Your task to perform on an android device: Go to notification settings Image 0: 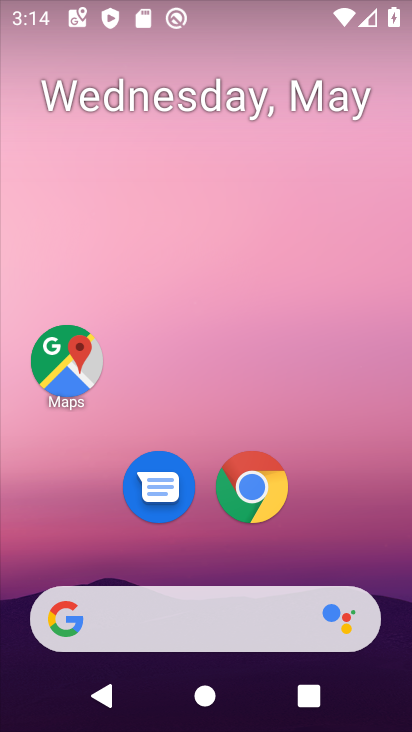
Step 0: drag from (333, 534) to (261, 39)
Your task to perform on an android device: Go to notification settings Image 1: 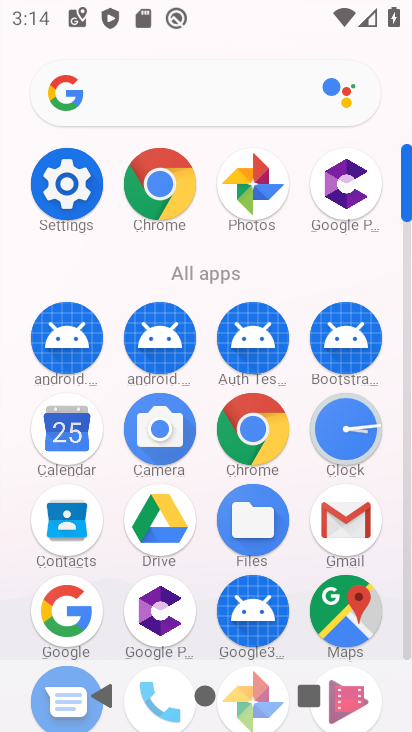
Step 1: click (69, 180)
Your task to perform on an android device: Go to notification settings Image 2: 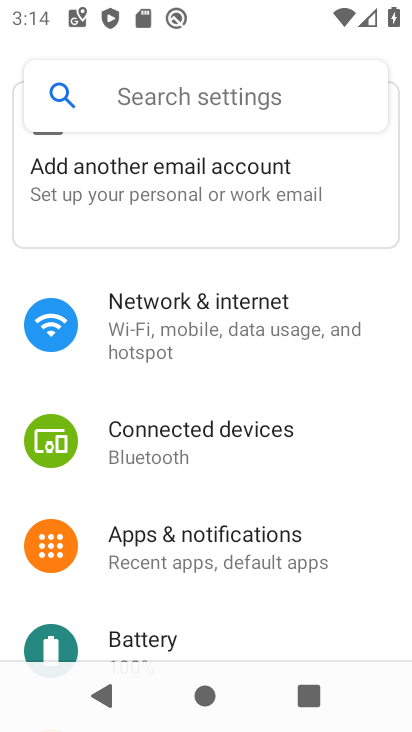
Step 2: drag from (335, 537) to (335, 159)
Your task to perform on an android device: Go to notification settings Image 3: 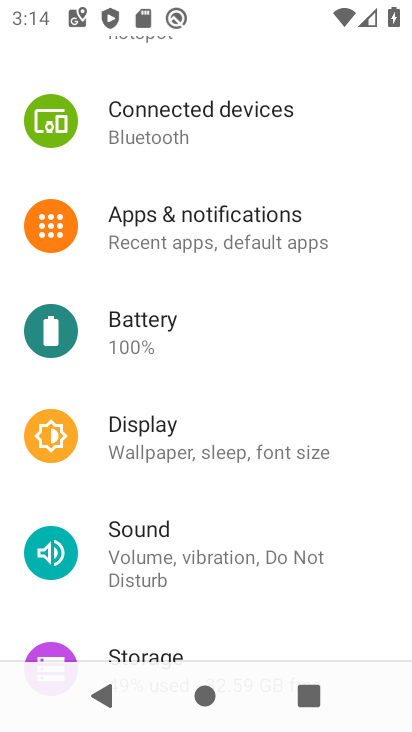
Step 3: drag from (302, 507) to (306, 141)
Your task to perform on an android device: Go to notification settings Image 4: 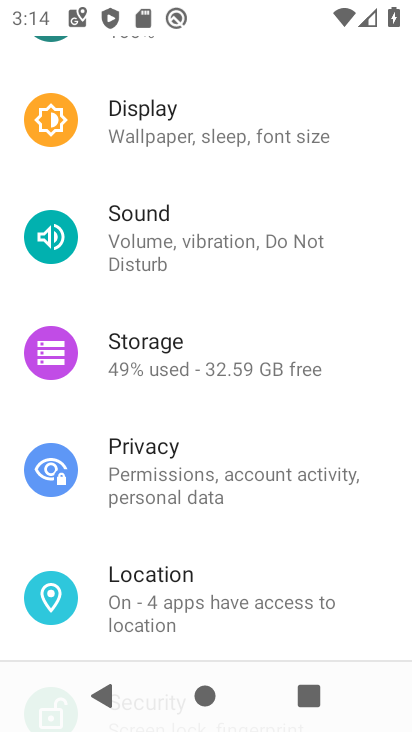
Step 4: drag from (283, 518) to (281, 153)
Your task to perform on an android device: Go to notification settings Image 5: 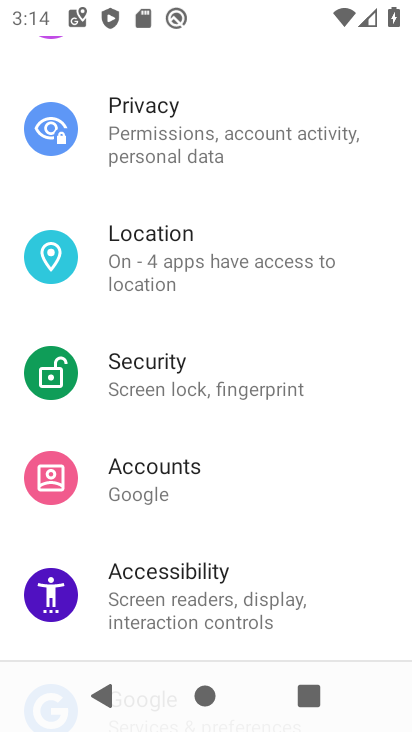
Step 5: drag from (302, 154) to (284, 591)
Your task to perform on an android device: Go to notification settings Image 6: 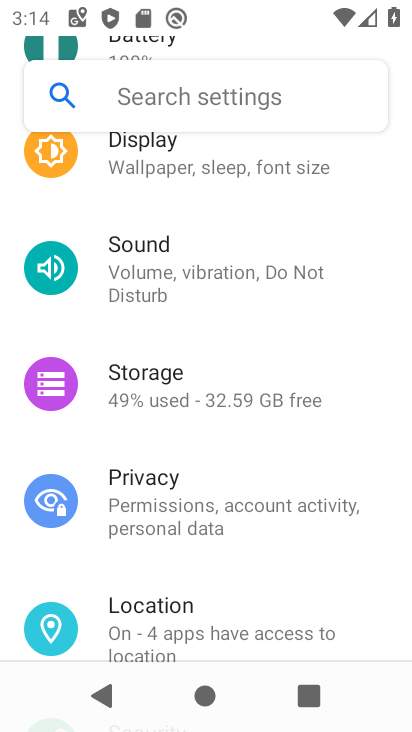
Step 6: drag from (279, 200) to (264, 572)
Your task to perform on an android device: Go to notification settings Image 7: 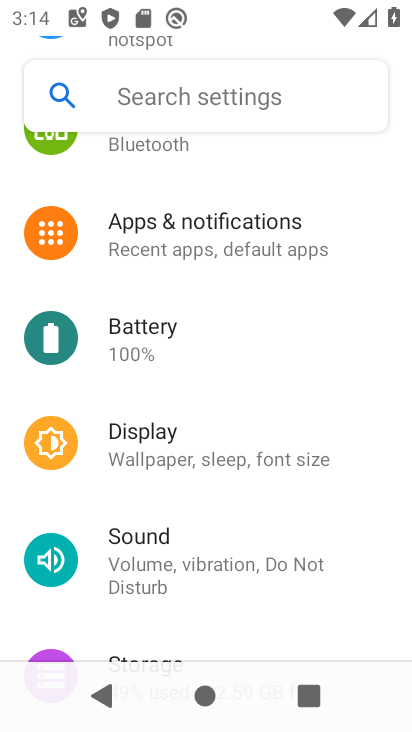
Step 7: drag from (267, 257) to (264, 573)
Your task to perform on an android device: Go to notification settings Image 8: 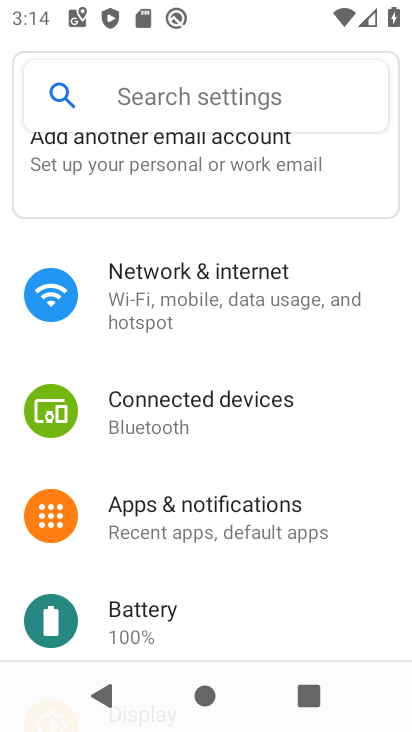
Step 8: click (209, 275)
Your task to perform on an android device: Go to notification settings Image 9: 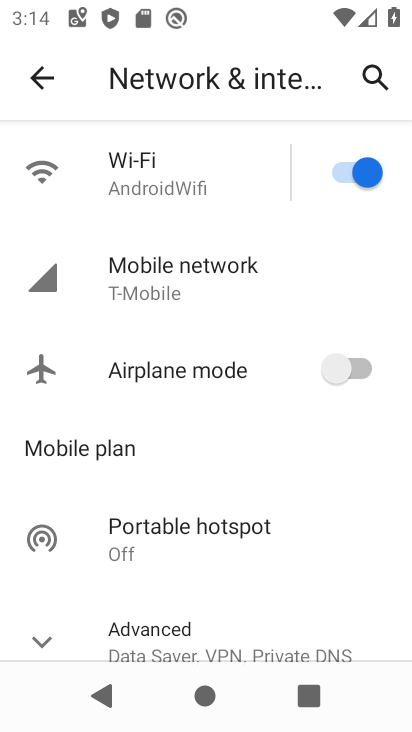
Step 9: click (43, 74)
Your task to perform on an android device: Go to notification settings Image 10: 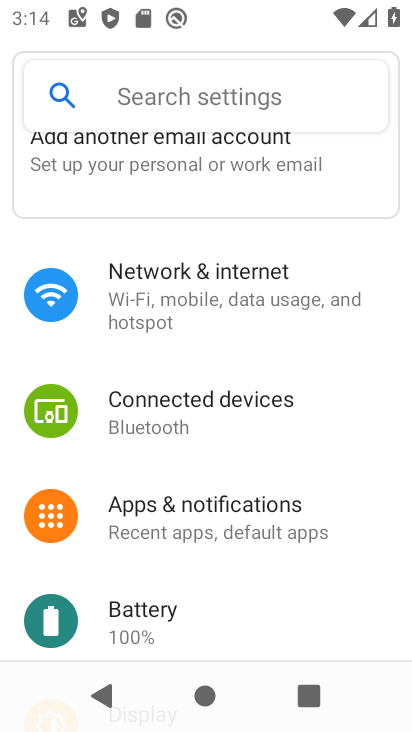
Step 10: click (185, 520)
Your task to perform on an android device: Go to notification settings Image 11: 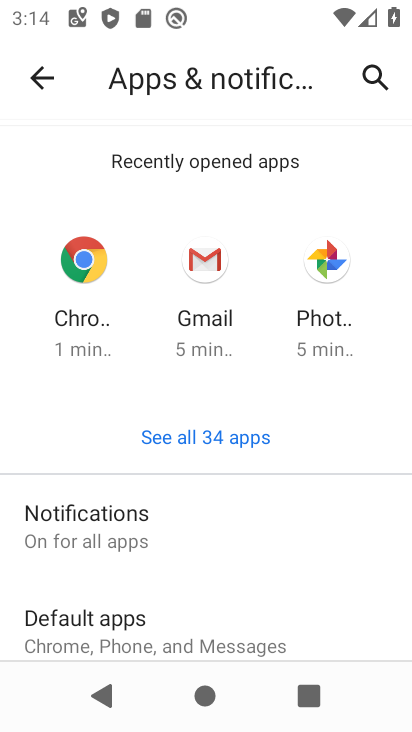
Step 11: drag from (163, 555) to (146, 258)
Your task to perform on an android device: Go to notification settings Image 12: 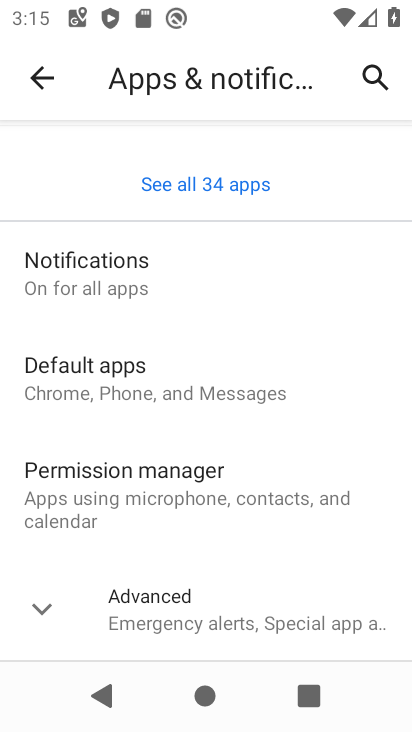
Step 12: click (39, 609)
Your task to perform on an android device: Go to notification settings Image 13: 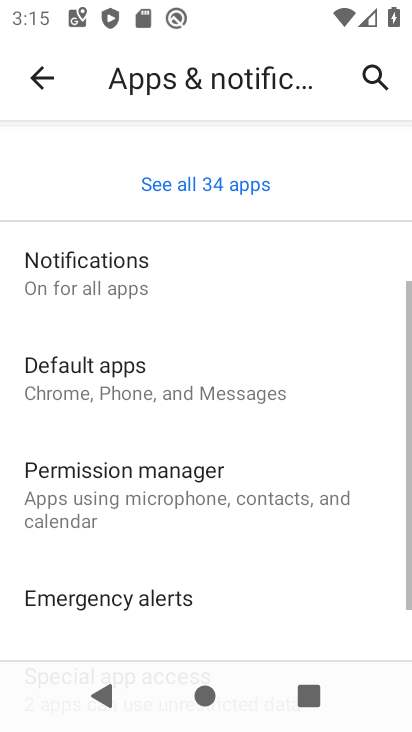
Step 13: task complete